Your task to perform on an android device: toggle notification dots Image 0: 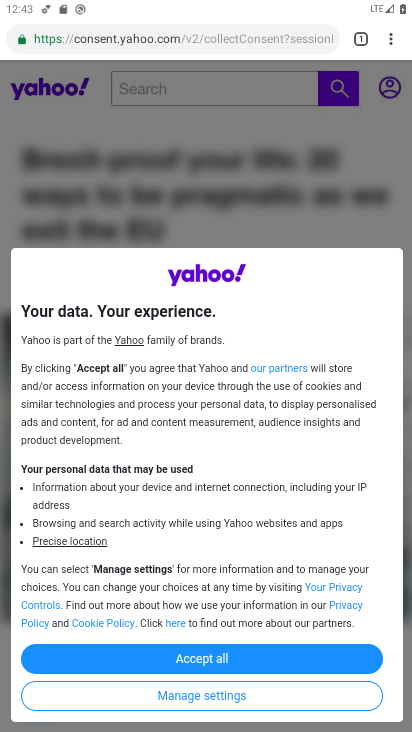
Step 0: press home button
Your task to perform on an android device: toggle notification dots Image 1: 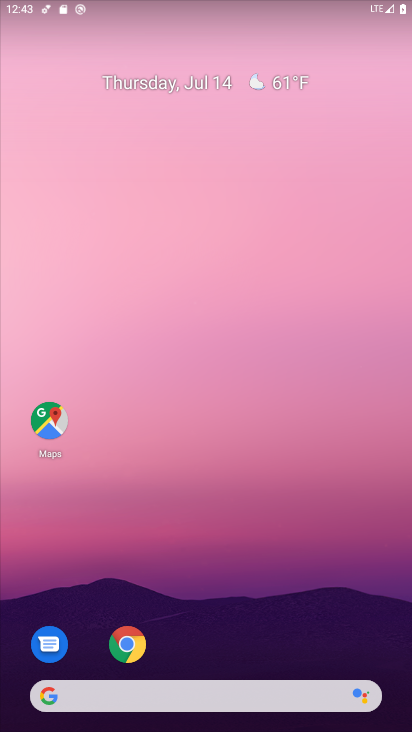
Step 1: drag from (243, 608) to (258, 66)
Your task to perform on an android device: toggle notification dots Image 2: 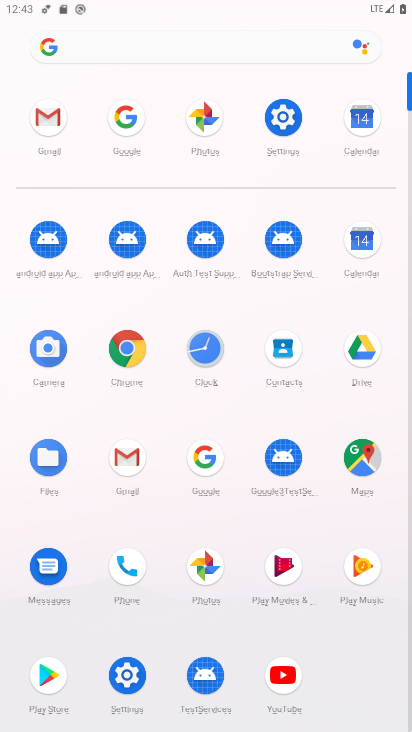
Step 2: click (282, 110)
Your task to perform on an android device: toggle notification dots Image 3: 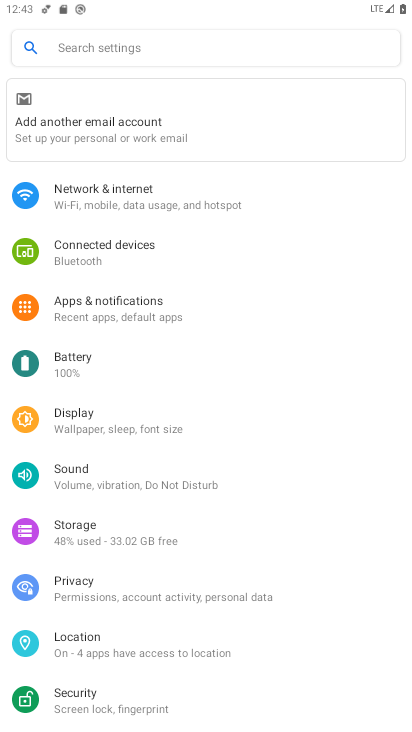
Step 3: click (142, 299)
Your task to perform on an android device: toggle notification dots Image 4: 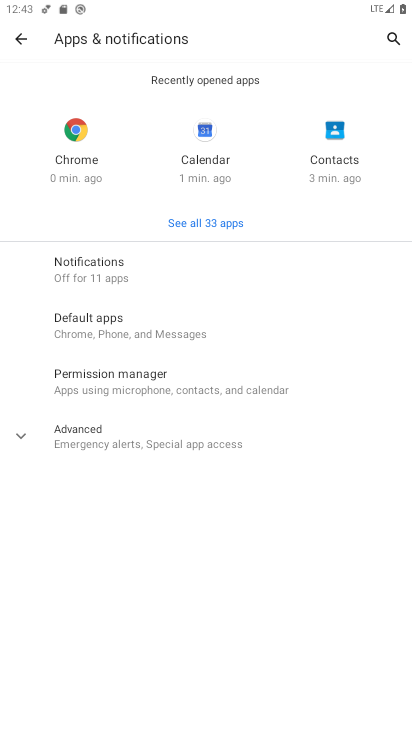
Step 4: click (102, 270)
Your task to perform on an android device: toggle notification dots Image 5: 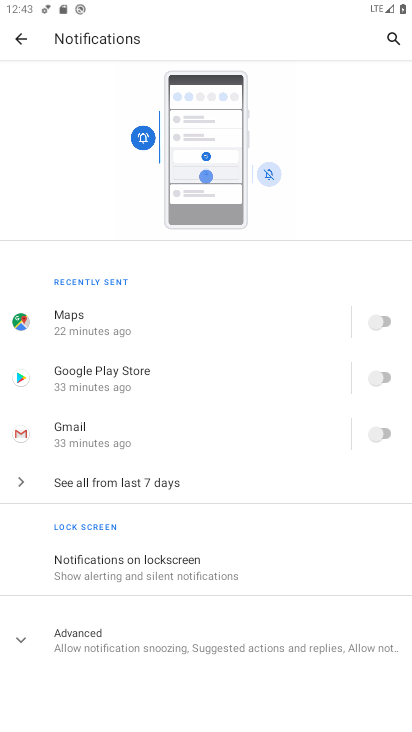
Step 5: click (125, 642)
Your task to perform on an android device: toggle notification dots Image 6: 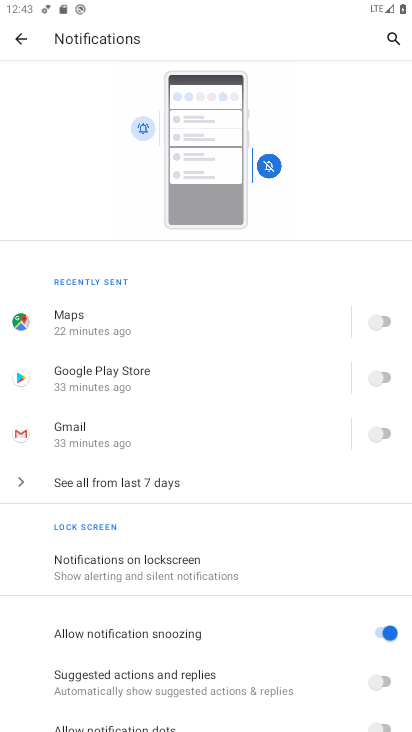
Step 6: click (377, 724)
Your task to perform on an android device: toggle notification dots Image 7: 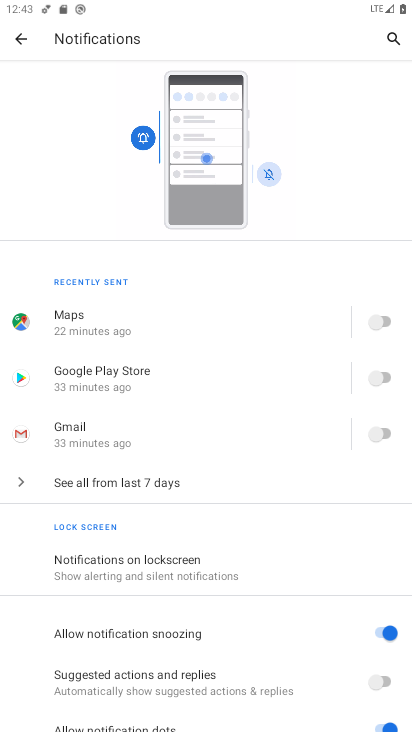
Step 7: task complete